Your task to perform on an android device: Do I have any events tomorrow? Image 0: 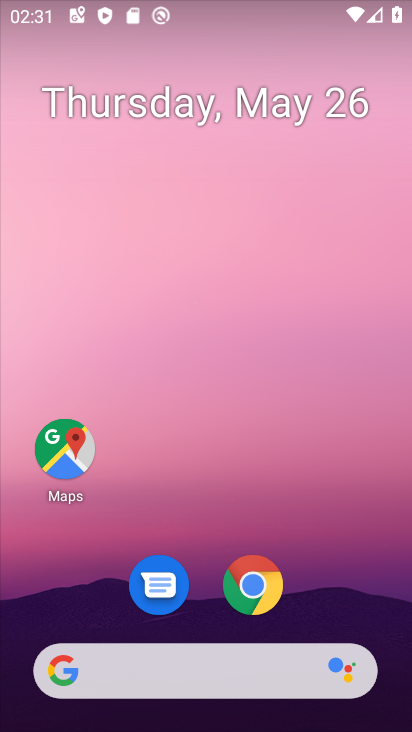
Step 0: drag from (235, 501) to (277, 44)
Your task to perform on an android device: Do I have any events tomorrow? Image 1: 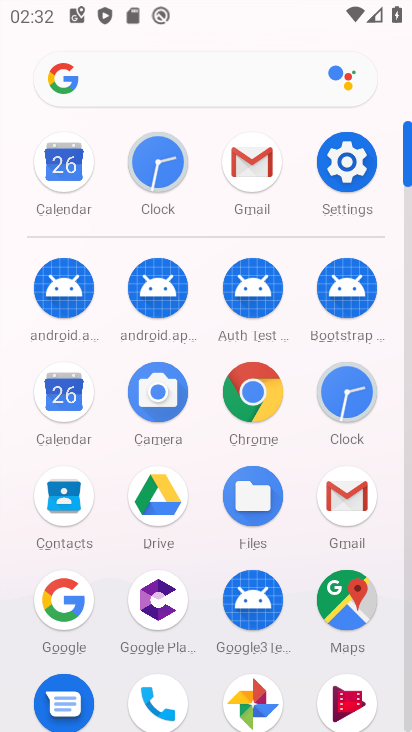
Step 1: click (66, 167)
Your task to perform on an android device: Do I have any events tomorrow? Image 2: 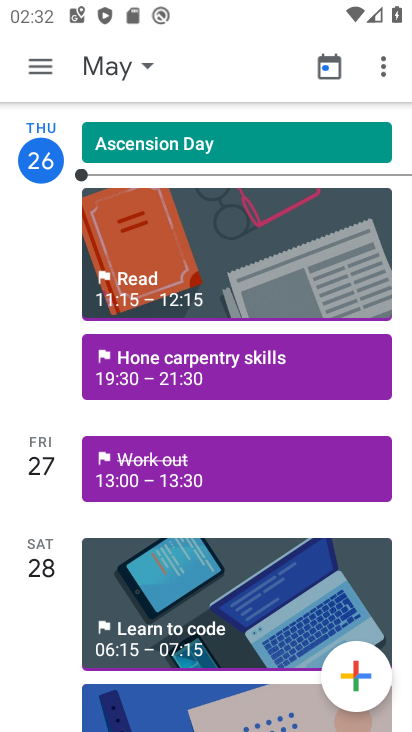
Step 2: task complete